Your task to perform on an android device: remove spam from my inbox in the gmail app Image 0: 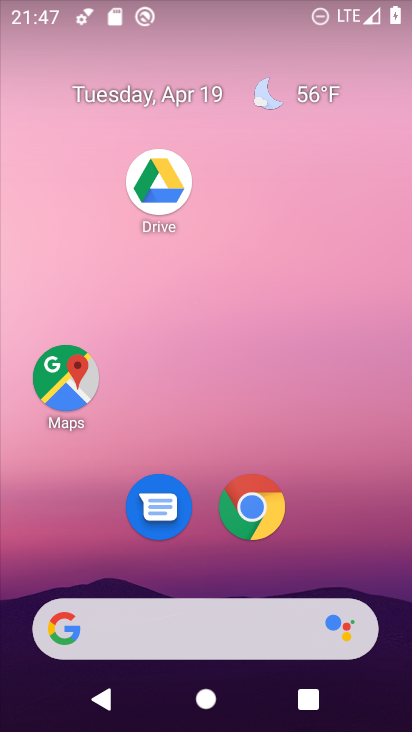
Step 0: drag from (345, 529) to (371, 122)
Your task to perform on an android device: remove spam from my inbox in the gmail app Image 1: 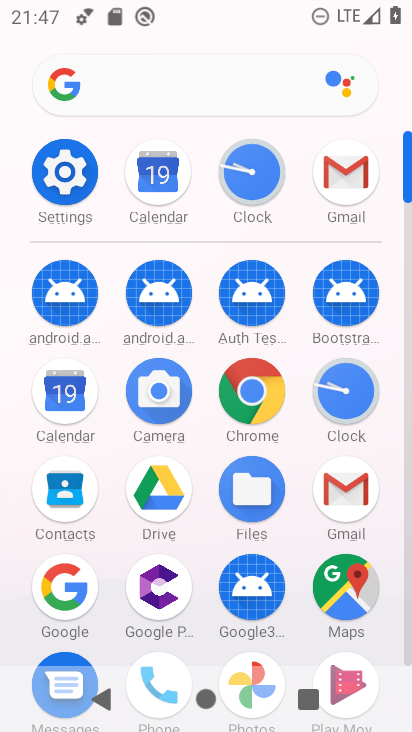
Step 1: click (344, 182)
Your task to perform on an android device: remove spam from my inbox in the gmail app Image 2: 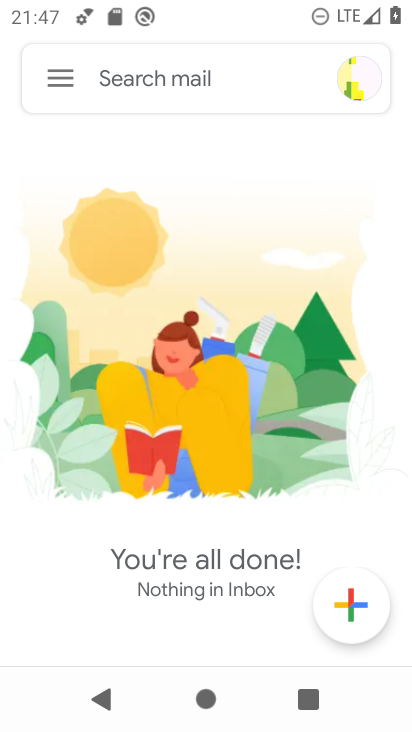
Step 2: click (69, 66)
Your task to perform on an android device: remove spam from my inbox in the gmail app Image 3: 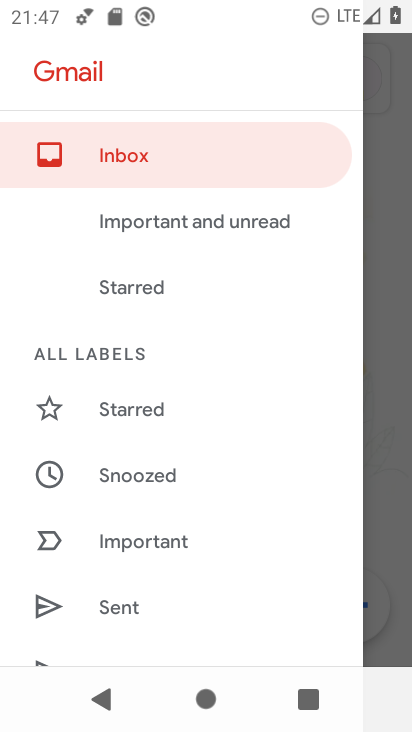
Step 3: drag from (230, 553) to (274, 148)
Your task to perform on an android device: remove spam from my inbox in the gmail app Image 4: 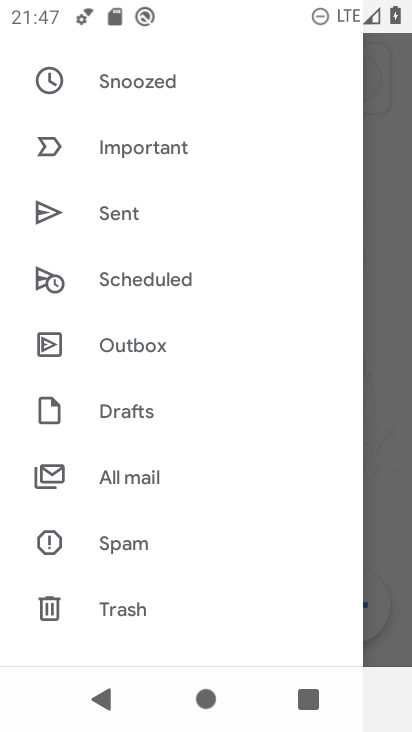
Step 4: click (194, 535)
Your task to perform on an android device: remove spam from my inbox in the gmail app Image 5: 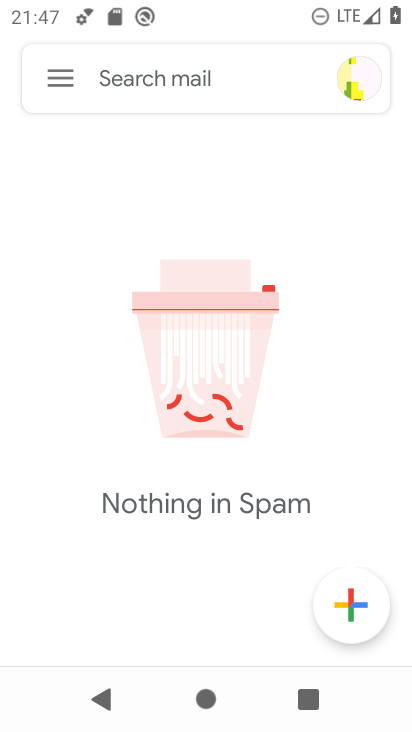
Step 5: task complete